Your task to perform on an android device: add a label to a message in the gmail app Image 0: 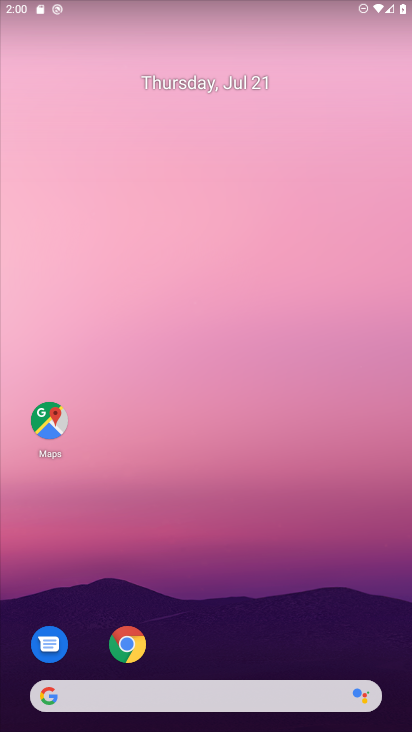
Step 0: drag from (233, 647) to (244, 170)
Your task to perform on an android device: add a label to a message in the gmail app Image 1: 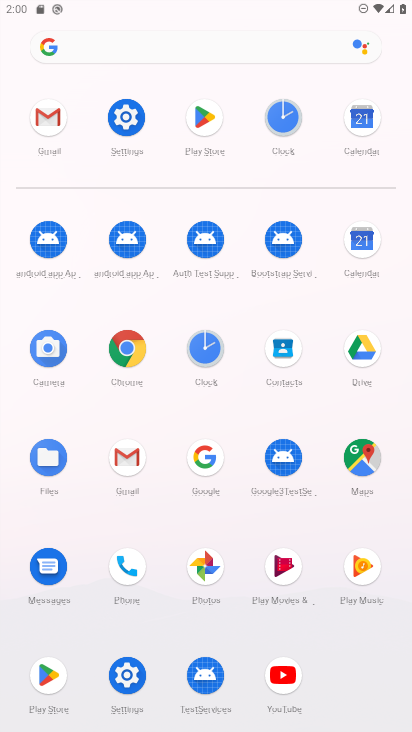
Step 1: click (121, 464)
Your task to perform on an android device: add a label to a message in the gmail app Image 2: 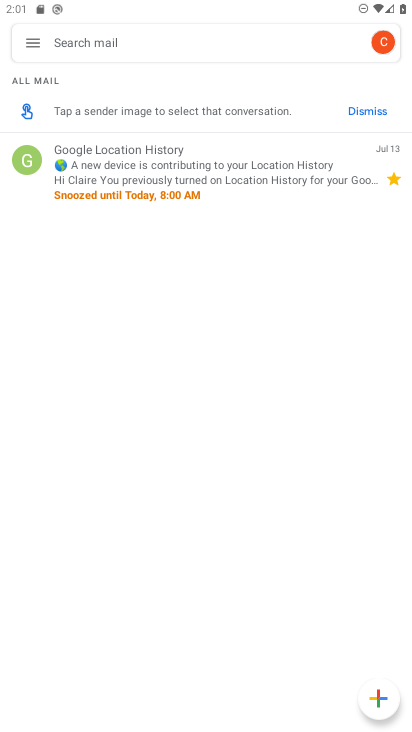
Step 2: click (168, 152)
Your task to perform on an android device: add a label to a message in the gmail app Image 3: 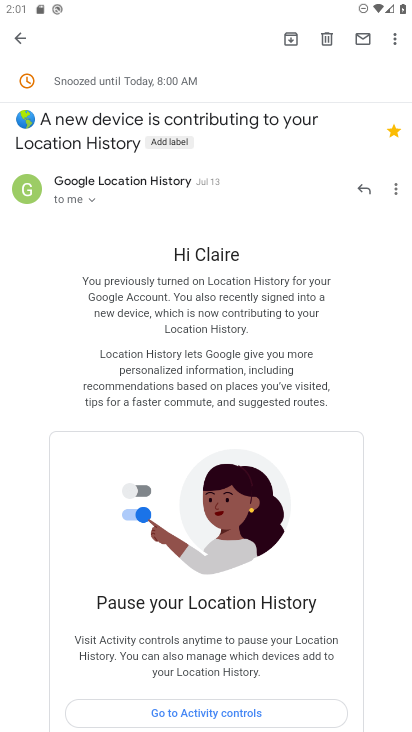
Step 3: click (172, 139)
Your task to perform on an android device: add a label to a message in the gmail app Image 4: 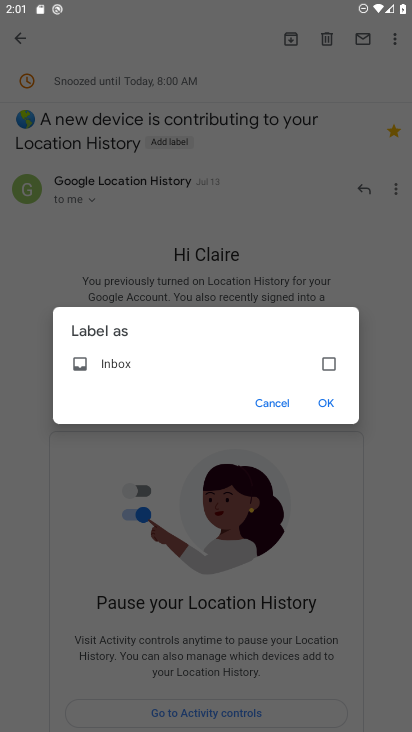
Step 4: click (313, 360)
Your task to perform on an android device: add a label to a message in the gmail app Image 5: 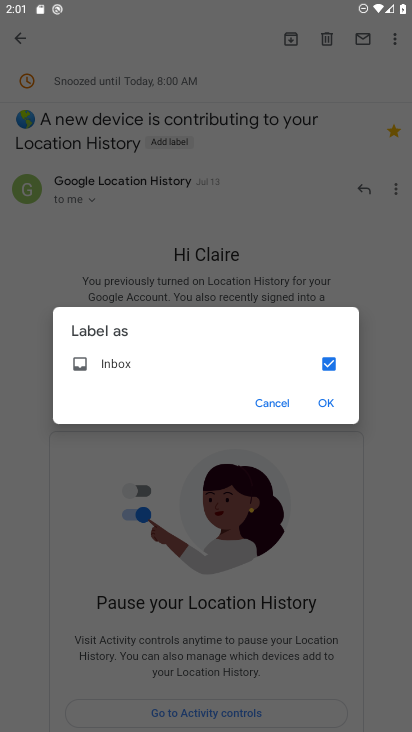
Step 5: click (333, 401)
Your task to perform on an android device: add a label to a message in the gmail app Image 6: 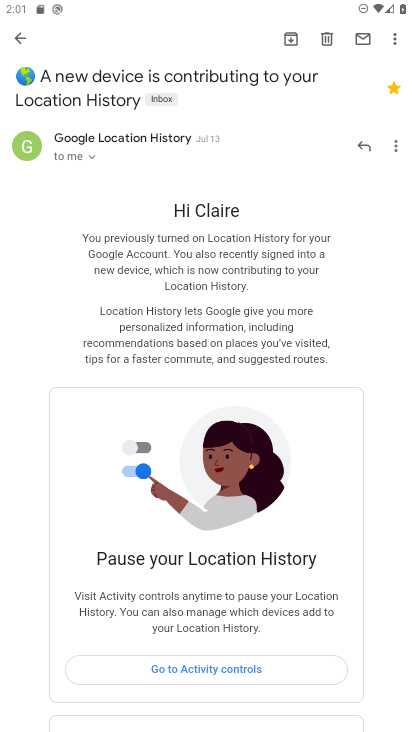
Step 6: task complete